Your task to perform on an android device: Search for seafood restaurants on Google Maps Image 0: 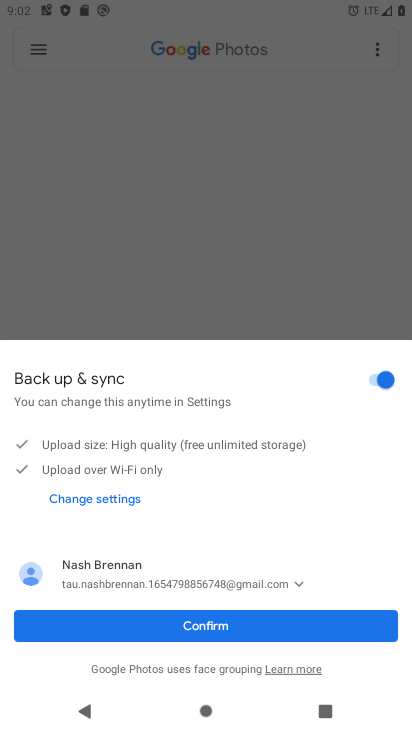
Step 0: press home button
Your task to perform on an android device: Search for seafood restaurants on Google Maps Image 1: 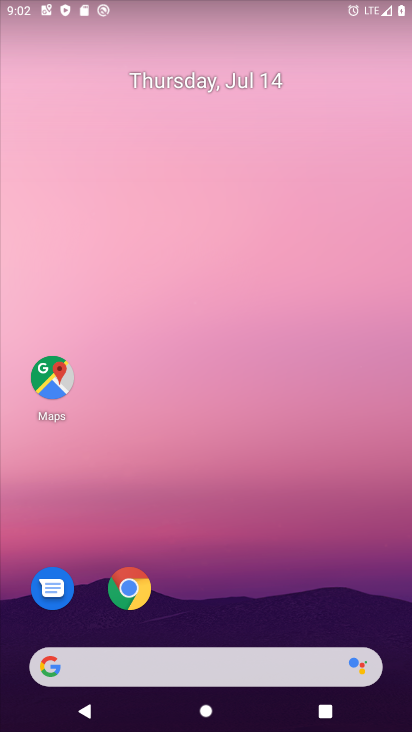
Step 1: drag from (214, 578) to (180, 14)
Your task to perform on an android device: Search for seafood restaurants on Google Maps Image 2: 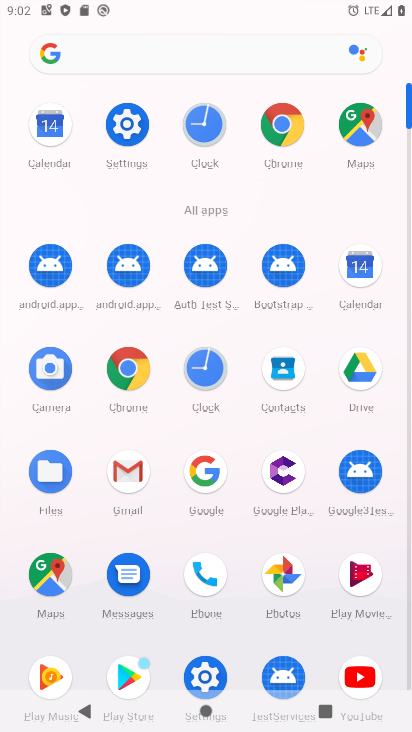
Step 2: click (52, 583)
Your task to perform on an android device: Search for seafood restaurants on Google Maps Image 3: 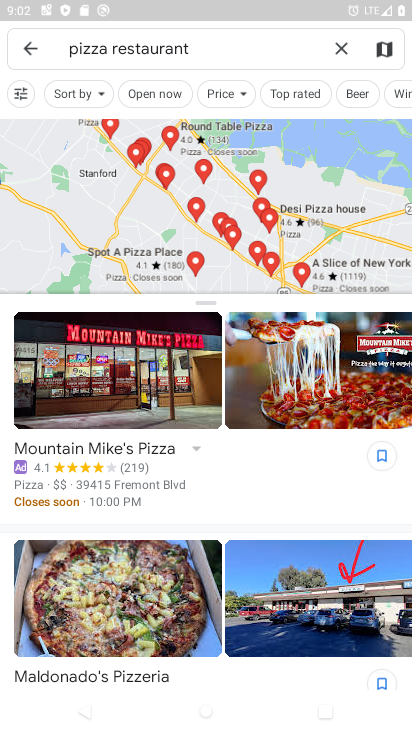
Step 3: click (340, 52)
Your task to perform on an android device: Search for seafood restaurants on Google Maps Image 4: 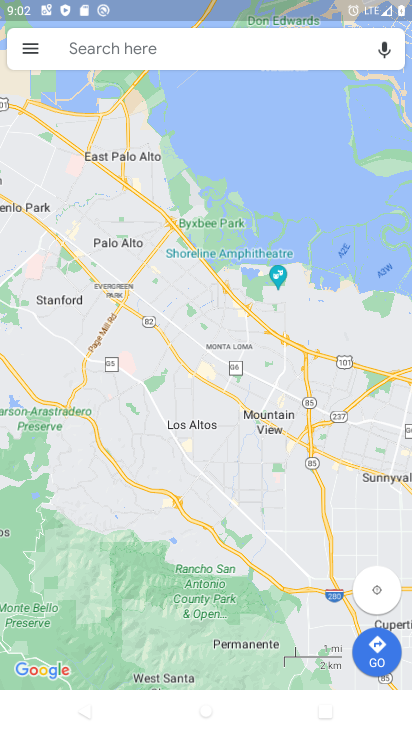
Step 4: click (242, 50)
Your task to perform on an android device: Search for seafood restaurants on Google Maps Image 5: 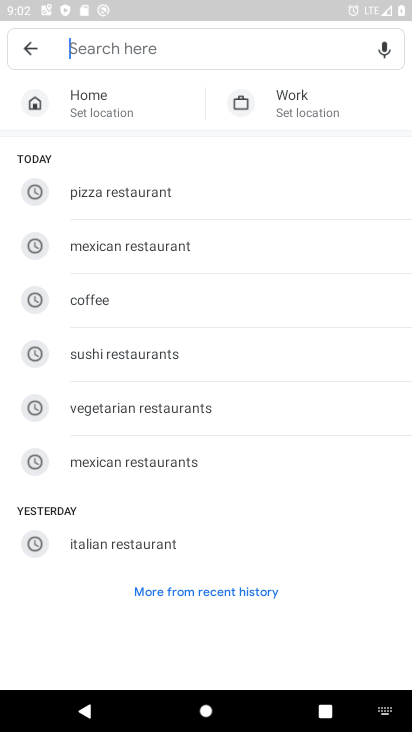
Step 5: type "seafood restaurants"
Your task to perform on an android device: Search for seafood restaurants on Google Maps Image 6: 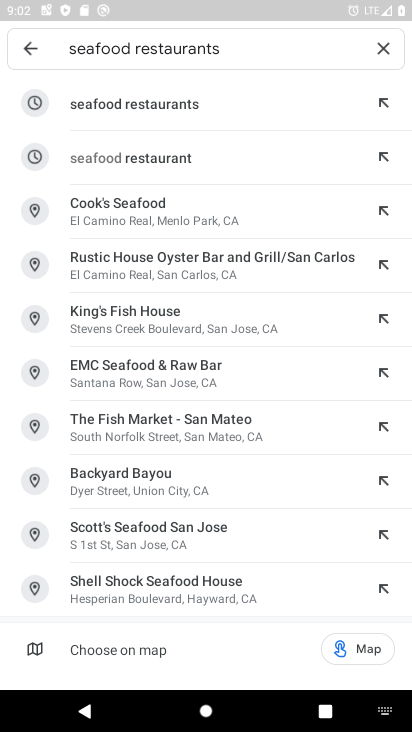
Step 6: click (103, 106)
Your task to perform on an android device: Search for seafood restaurants on Google Maps Image 7: 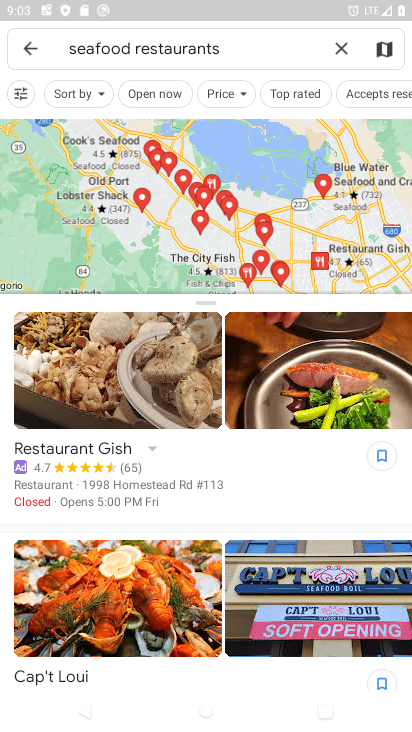
Step 7: task complete